Your task to perform on an android device: see sites visited before in the chrome app Image 0: 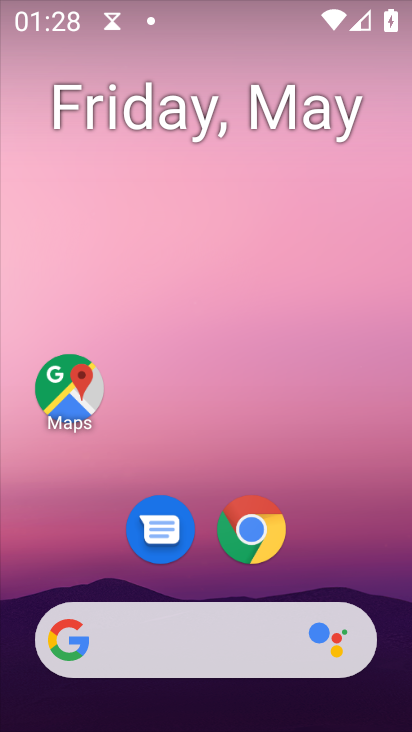
Step 0: drag from (289, 551) to (288, 181)
Your task to perform on an android device: see sites visited before in the chrome app Image 1: 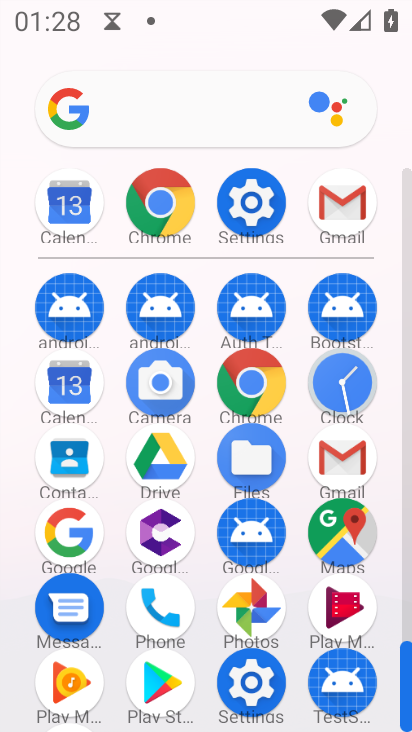
Step 1: click (169, 201)
Your task to perform on an android device: see sites visited before in the chrome app Image 2: 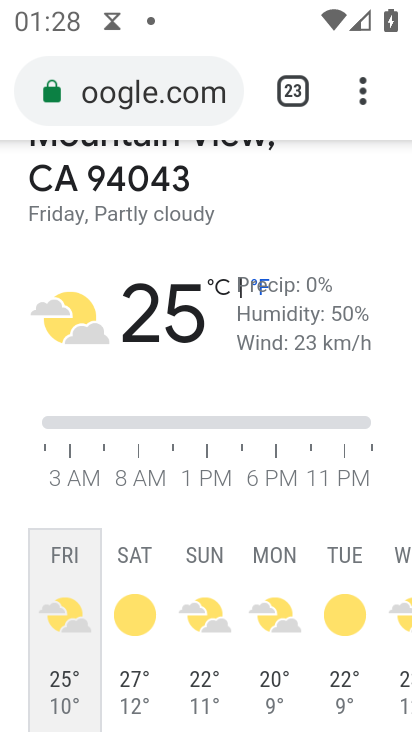
Step 2: click (367, 84)
Your task to perform on an android device: see sites visited before in the chrome app Image 3: 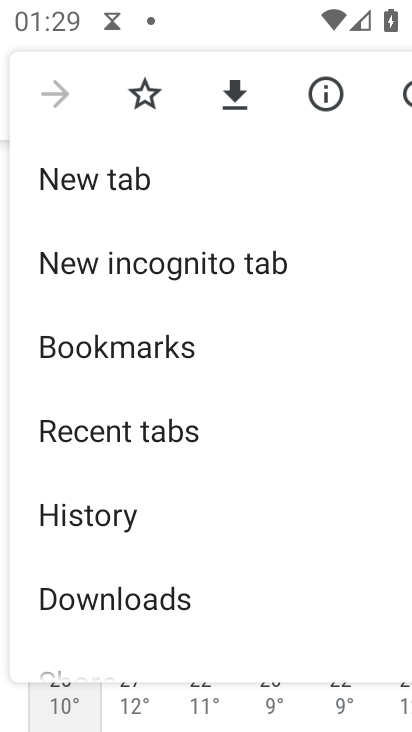
Step 3: click (127, 511)
Your task to perform on an android device: see sites visited before in the chrome app Image 4: 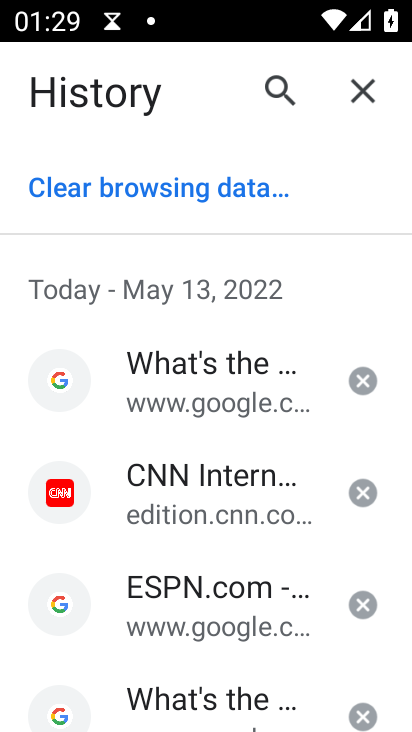
Step 4: task complete